Your task to perform on an android device: Open Wikipedia Image 0: 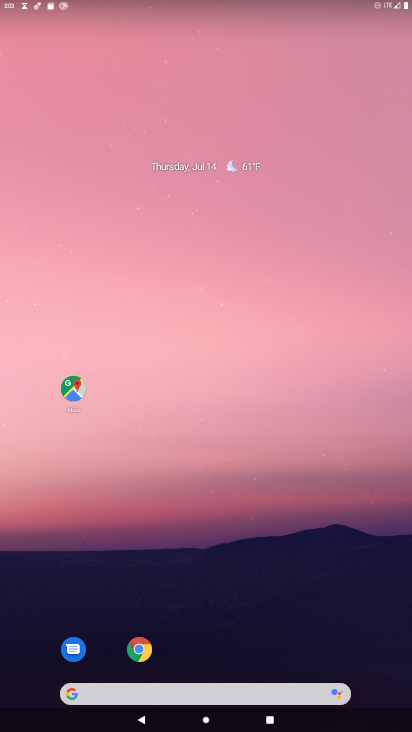
Step 0: drag from (253, 571) to (311, 0)
Your task to perform on an android device: Open Wikipedia Image 1: 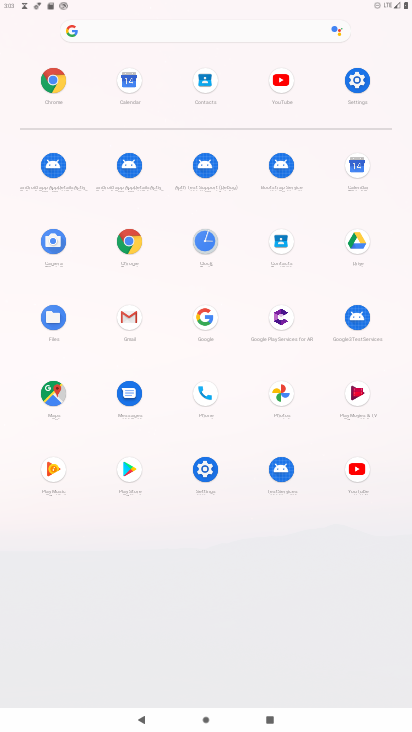
Step 1: click (139, 243)
Your task to perform on an android device: Open Wikipedia Image 2: 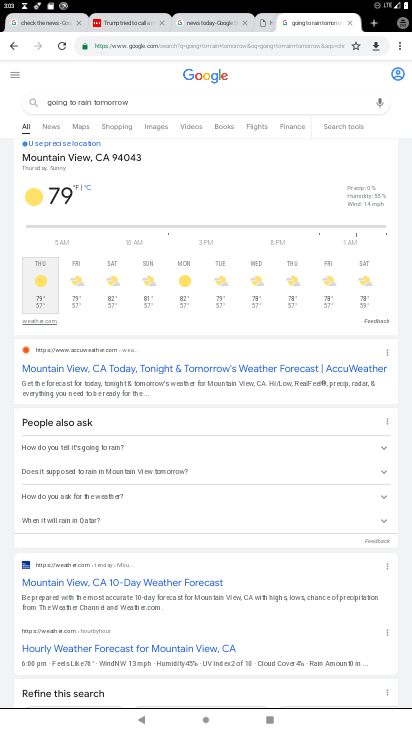
Step 2: click (242, 44)
Your task to perform on an android device: Open Wikipedia Image 3: 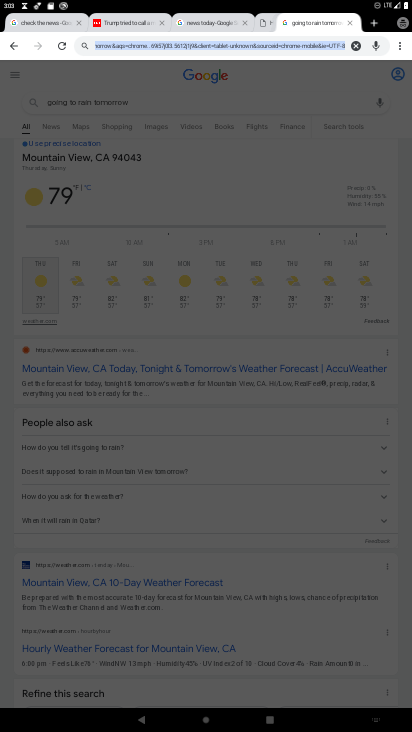
Step 3: type "wikipedia"
Your task to perform on an android device: Open Wikipedia Image 4: 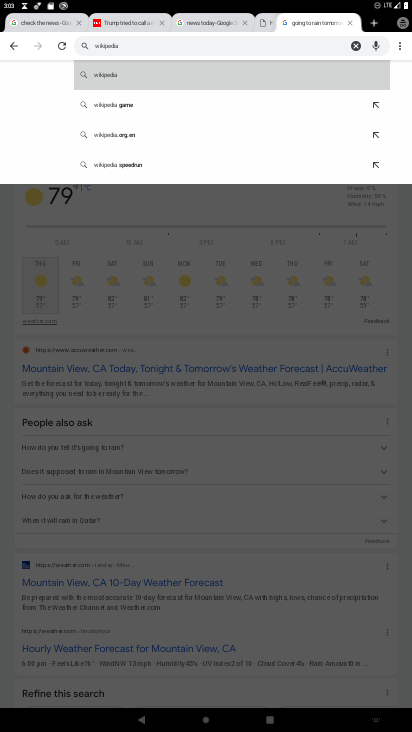
Step 4: click (199, 80)
Your task to perform on an android device: Open Wikipedia Image 5: 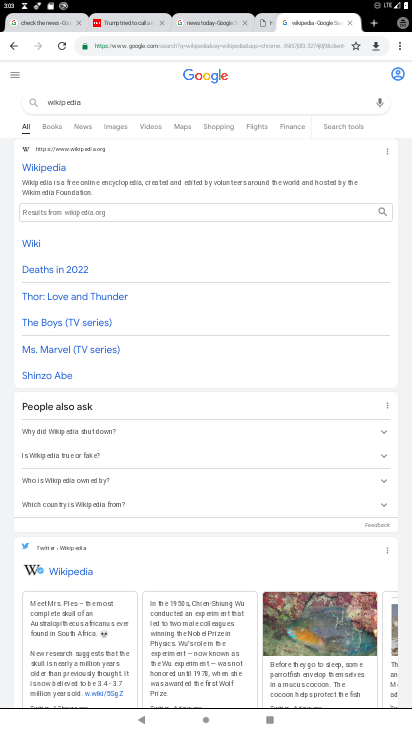
Step 5: task complete